Your task to perform on an android device: see sites visited before in the chrome app Image 0: 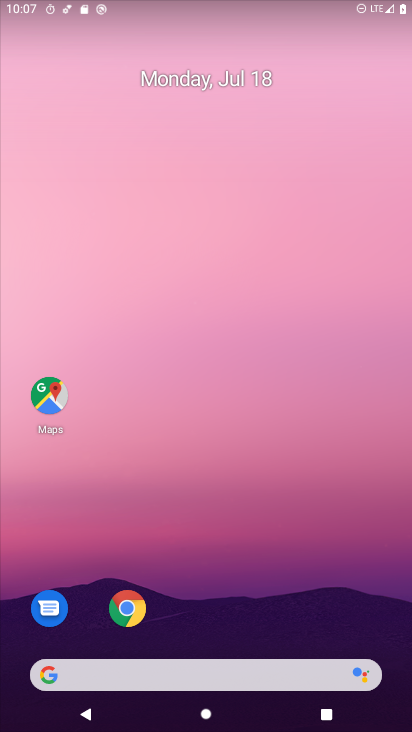
Step 0: click (116, 614)
Your task to perform on an android device: see sites visited before in the chrome app Image 1: 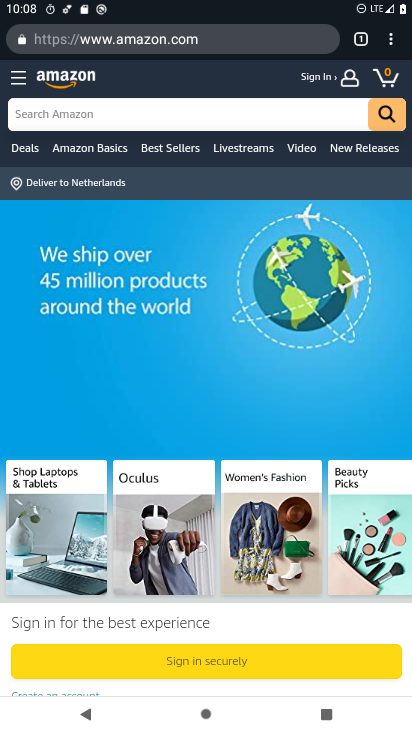
Step 1: click (389, 38)
Your task to perform on an android device: see sites visited before in the chrome app Image 2: 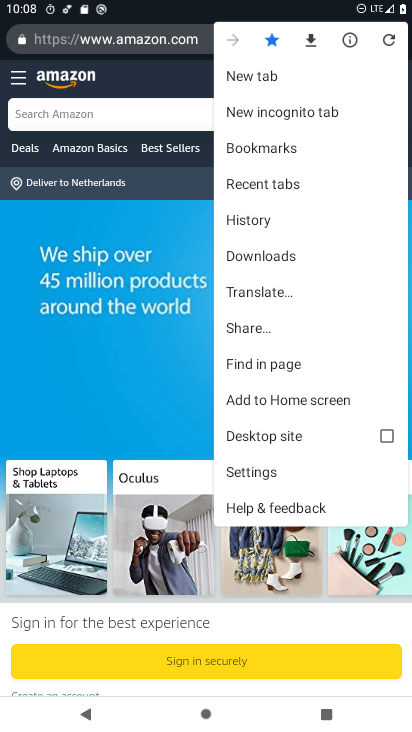
Step 2: click (255, 220)
Your task to perform on an android device: see sites visited before in the chrome app Image 3: 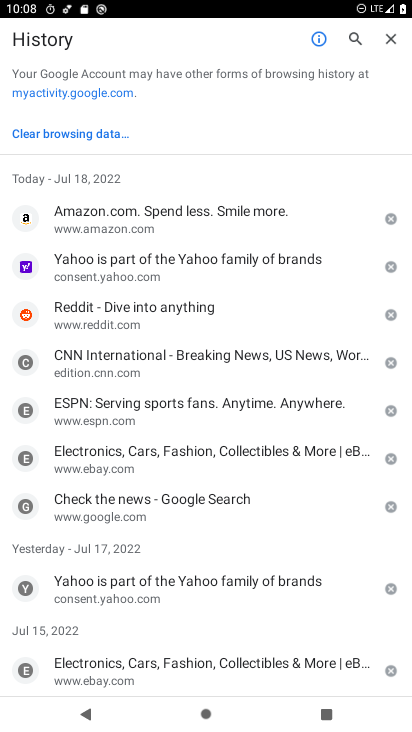
Step 3: task complete